Your task to perform on an android device: Is it going to rain tomorrow? Image 0: 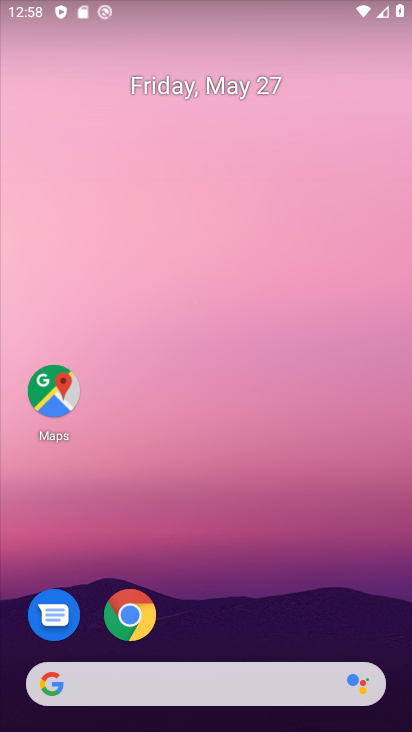
Step 0: press home button
Your task to perform on an android device: Is it going to rain tomorrow? Image 1: 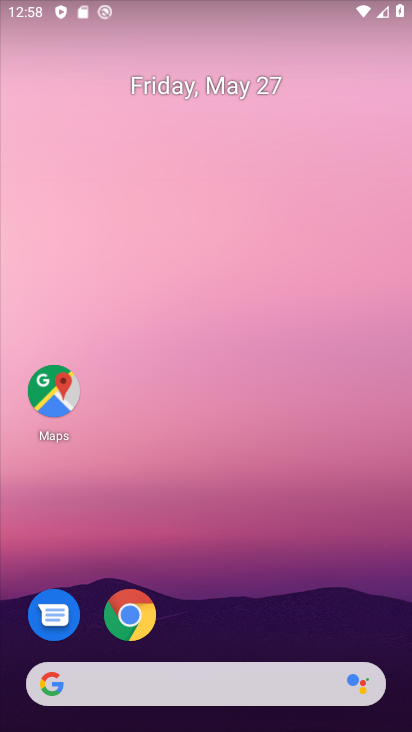
Step 1: click (50, 688)
Your task to perform on an android device: Is it going to rain tomorrow? Image 2: 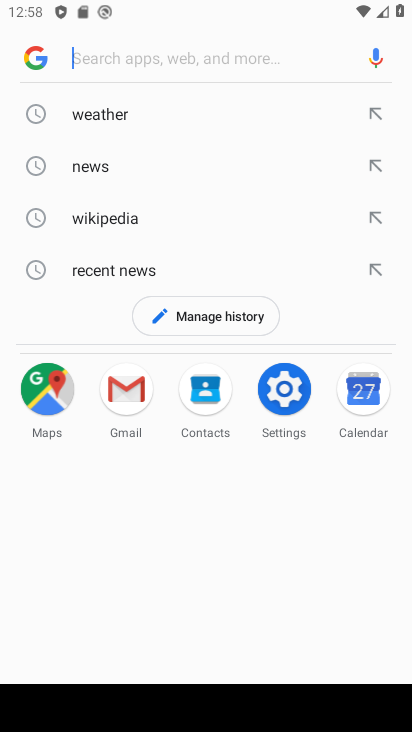
Step 2: type "Is it going to rain tomorrow?"
Your task to perform on an android device: Is it going to rain tomorrow? Image 3: 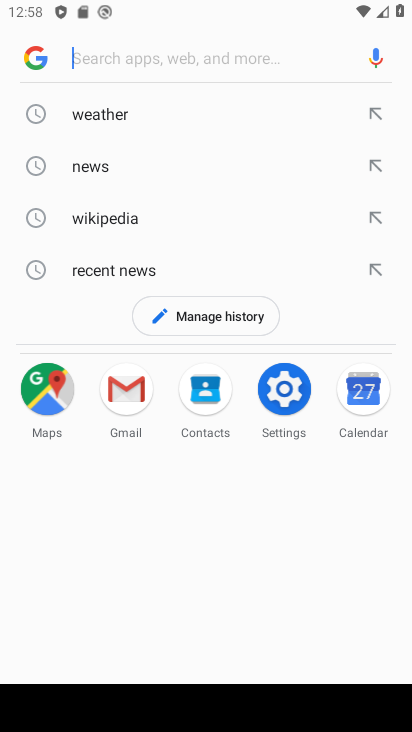
Step 3: click (247, 54)
Your task to perform on an android device: Is it going to rain tomorrow? Image 4: 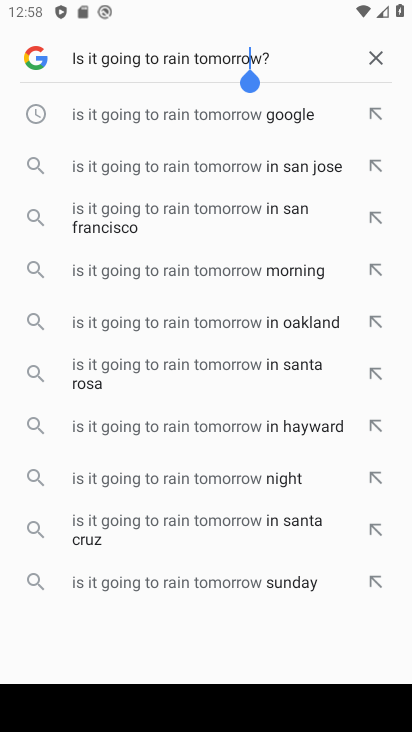
Step 4: click (175, 119)
Your task to perform on an android device: Is it going to rain tomorrow? Image 5: 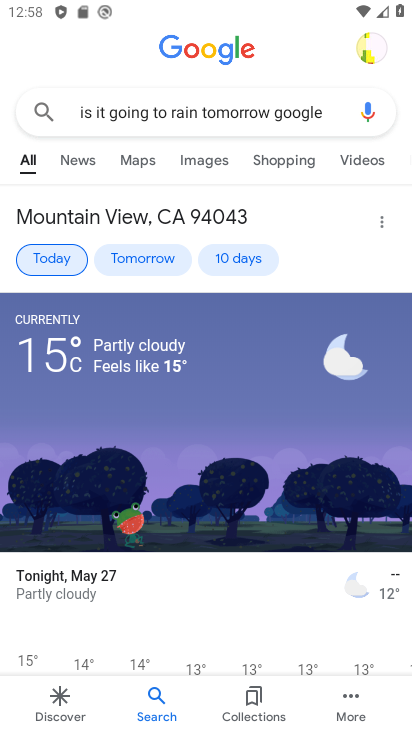
Step 5: task complete